Your task to perform on an android device: Open display settings Image 0: 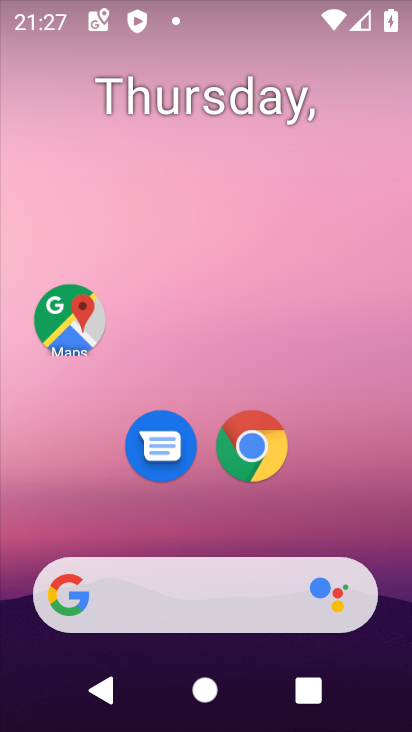
Step 0: drag from (351, 507) to (392, 66)
Your task to perform on an android device: Open display settings Image 1: 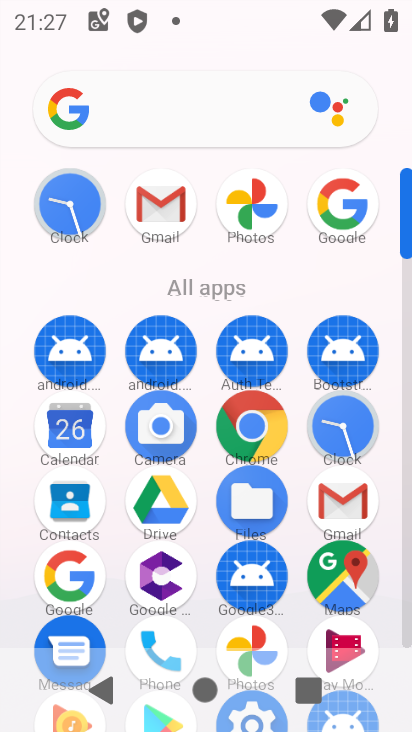
Step 1: drag from (407, 623) to (407, 659)
Your task to perform on an android device: Open display settings Image 2: 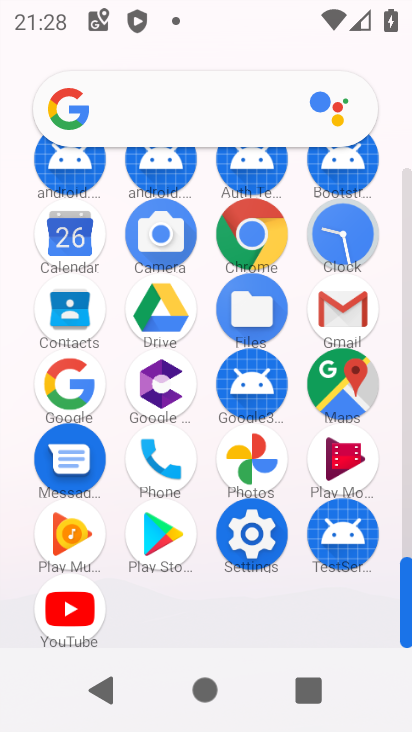
Step 2: click (234, 552)
Your task to perform on an android device: Open display settings Image 3: 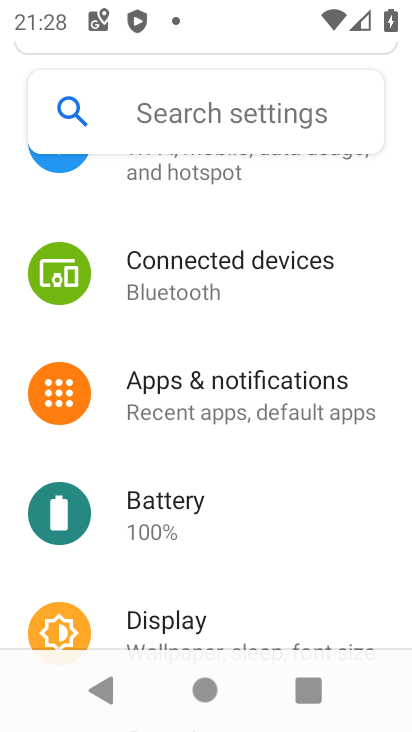
Step 3: click (212, 622)
Your task to perform on an android device: Open display settings Image 4: 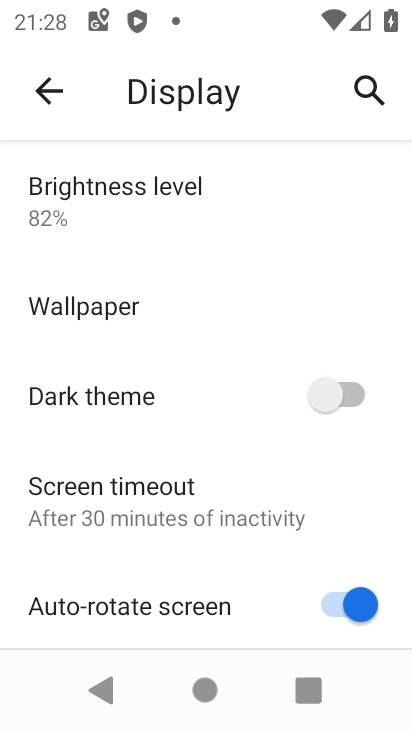
Step 4: task complete